Your task to perform on an android device: Turn off the flashlight Image 0: 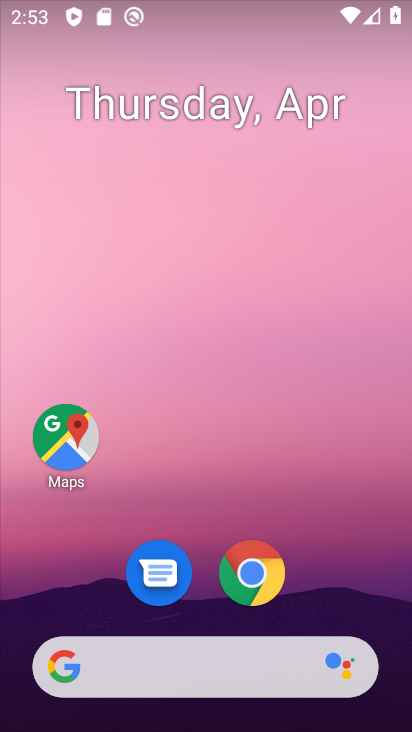
Step 0: drag from (313, 443) to (245, 97)
Your task to perform on an android device: Turn off the flashlight Image 1: 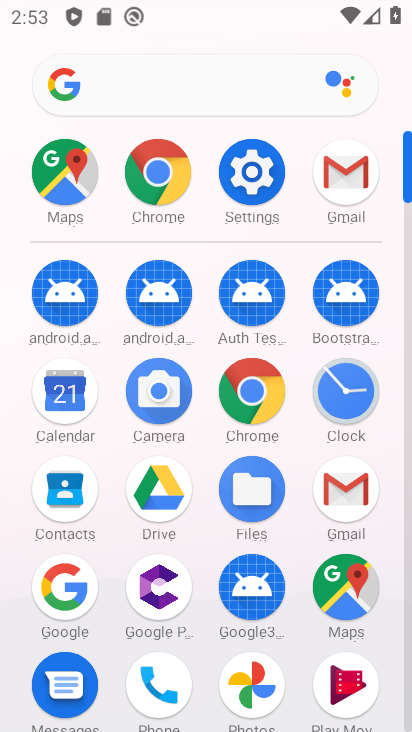
Step 1: click (266, 162)
Your task to perform on an android device: Turn off the flashlight Image 2: 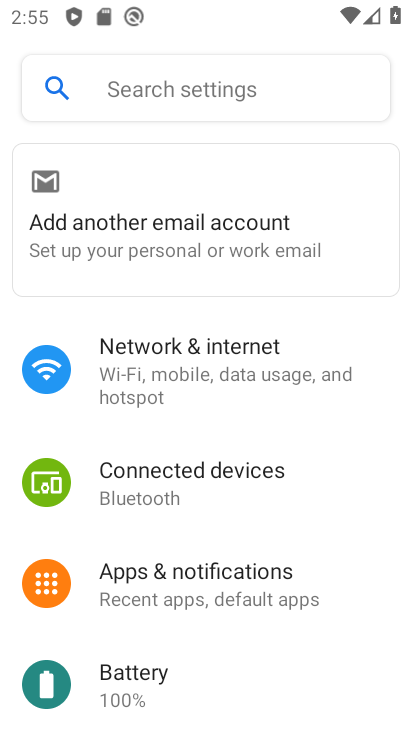
Step 2: task complete